Your task to perform on an android device: open app "eBay: The shopping marketplace" Image 0: 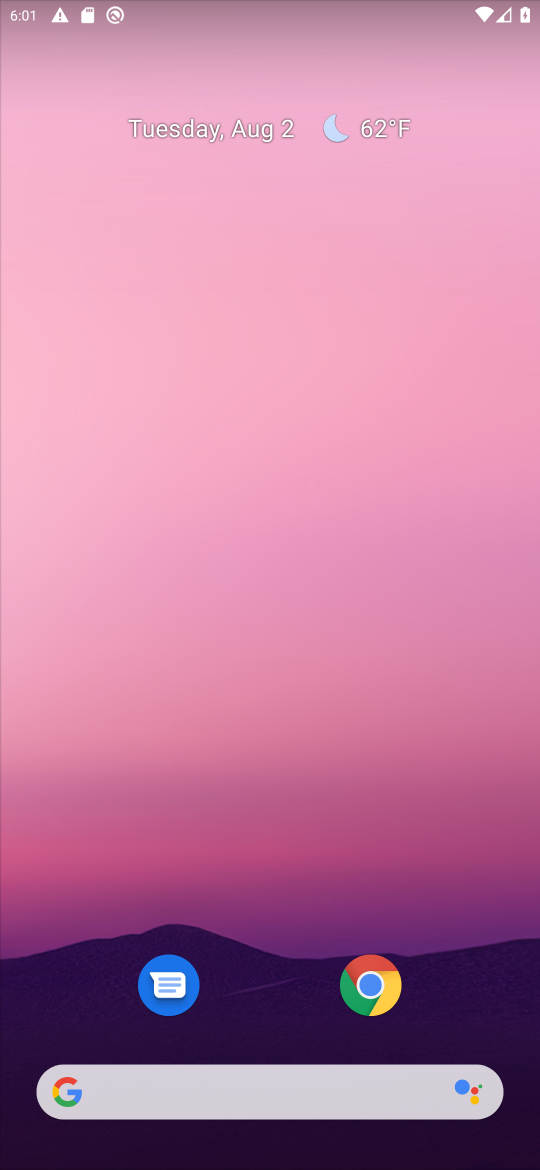
Step 0: drag from (275, 874) to (307, 293)
Your task to perform on an android device: open app "eBay: The shopping marketplace" Image 1: 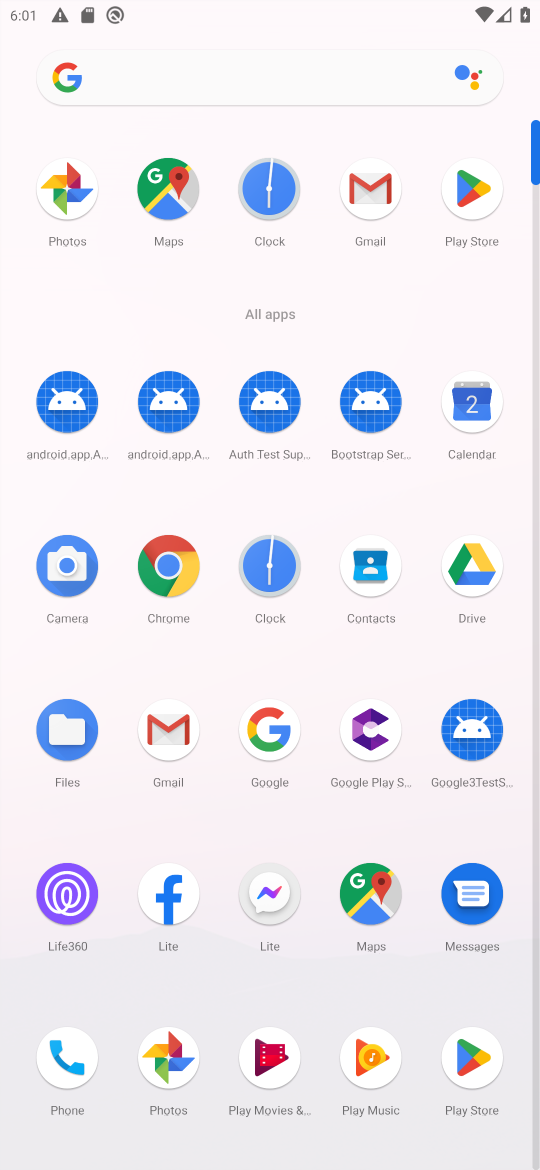
Step 1: click (456, 174)
Your task to perform on an android device: open app "eBay: The shopping marketplace" Image 2: 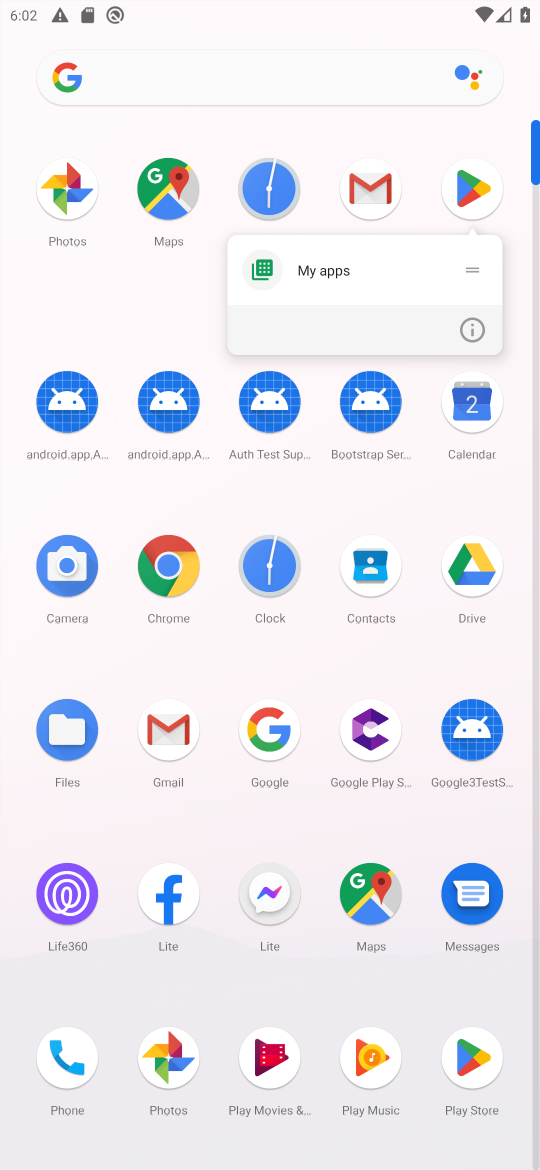
Step 2: click (454, 179)
Your task to perform on an android device: open app "eBay: The shopping marketplace" Image 3: 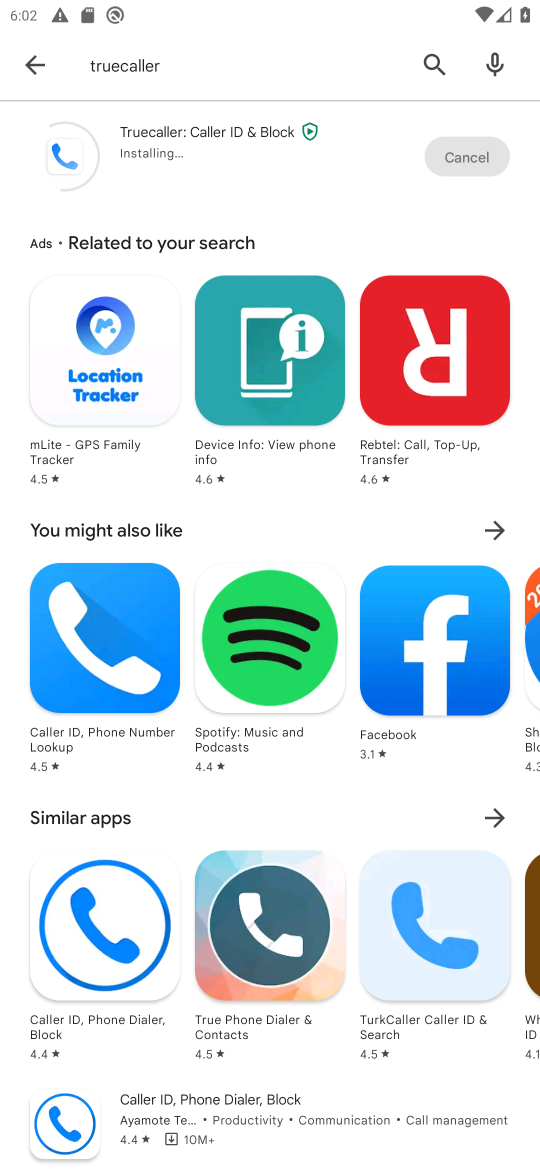
Step 3: click (444, 66)
Your task to perform on an android device: open app "eBay: The shopping marketplace" Image 4: 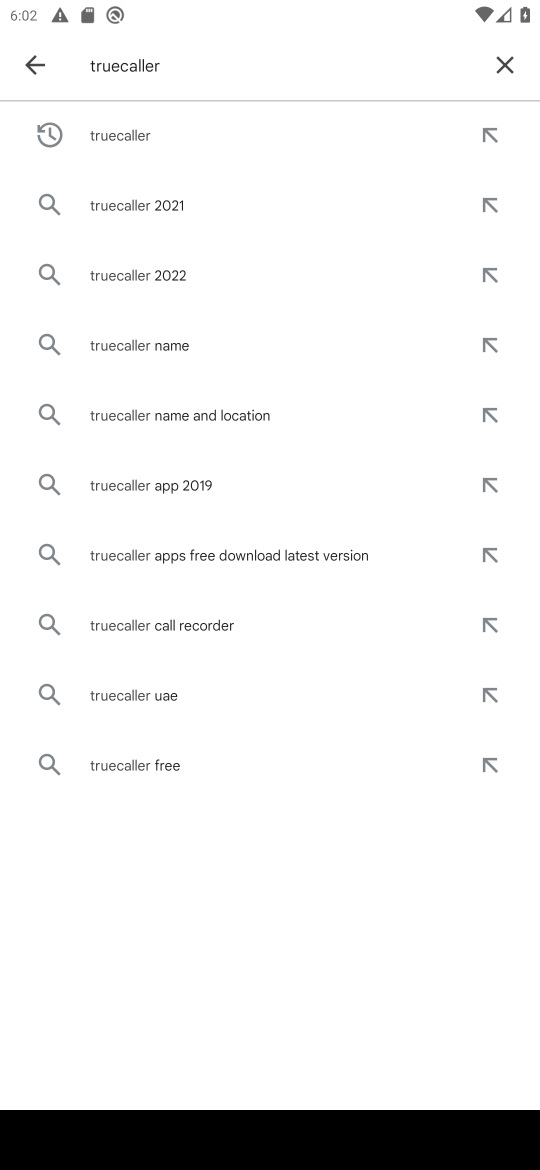
Step 4: click (494, 71)
Your task to perform on an android device: open app "eBay: The shopping marketplace" Image 5: 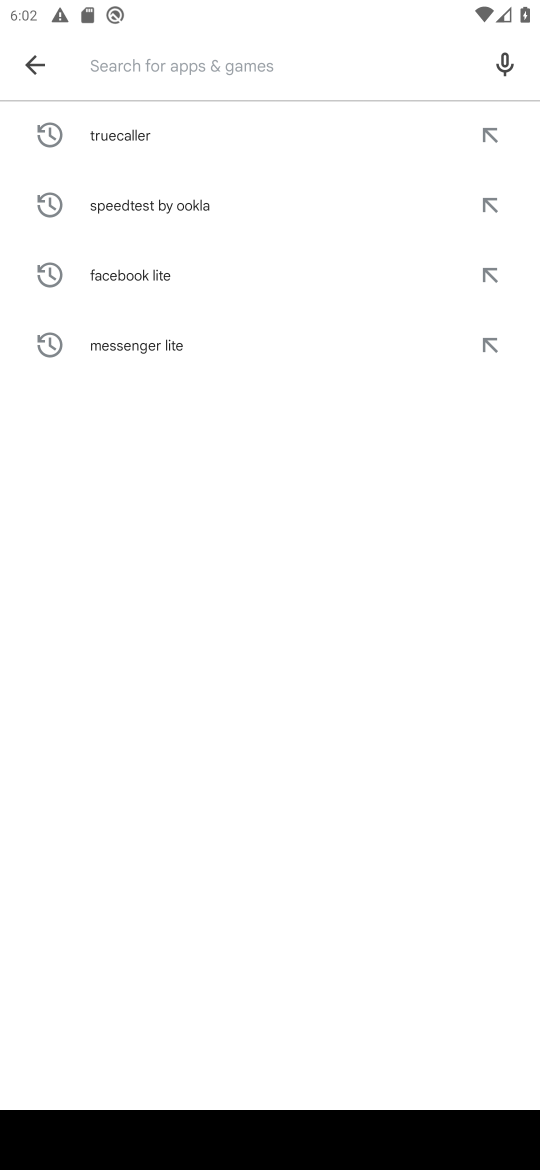
Step 5: type "eBay: The shopping marketplace"
Your task to perform on an android device: open app "eBay: The shopping marketplace" Image 6: 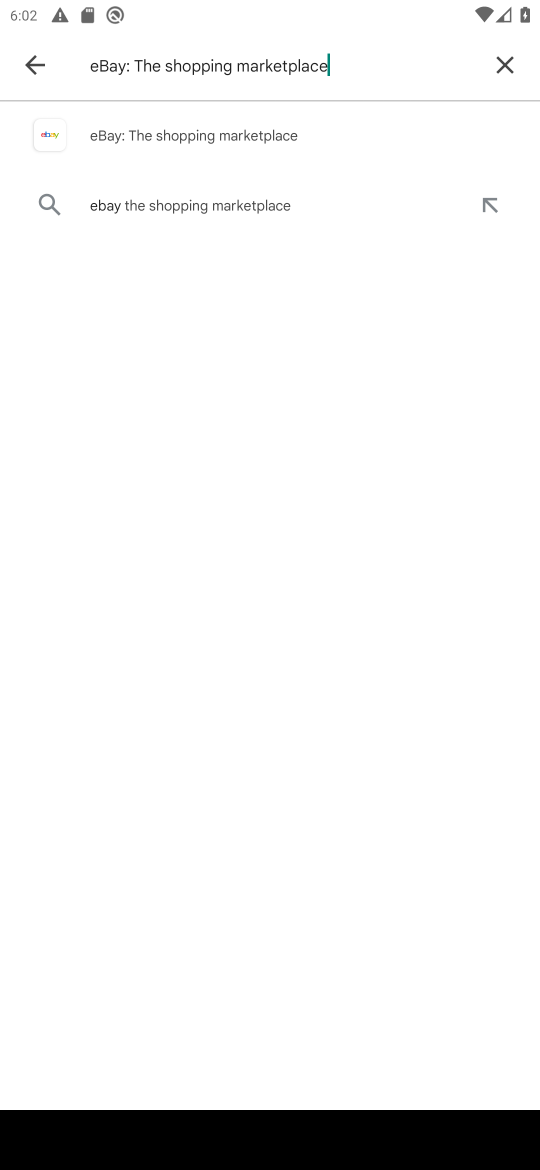
Step 6: click (221, 142)
Your task to perform on an android device: open app "eBay: The shopping marketplace" Image 7: 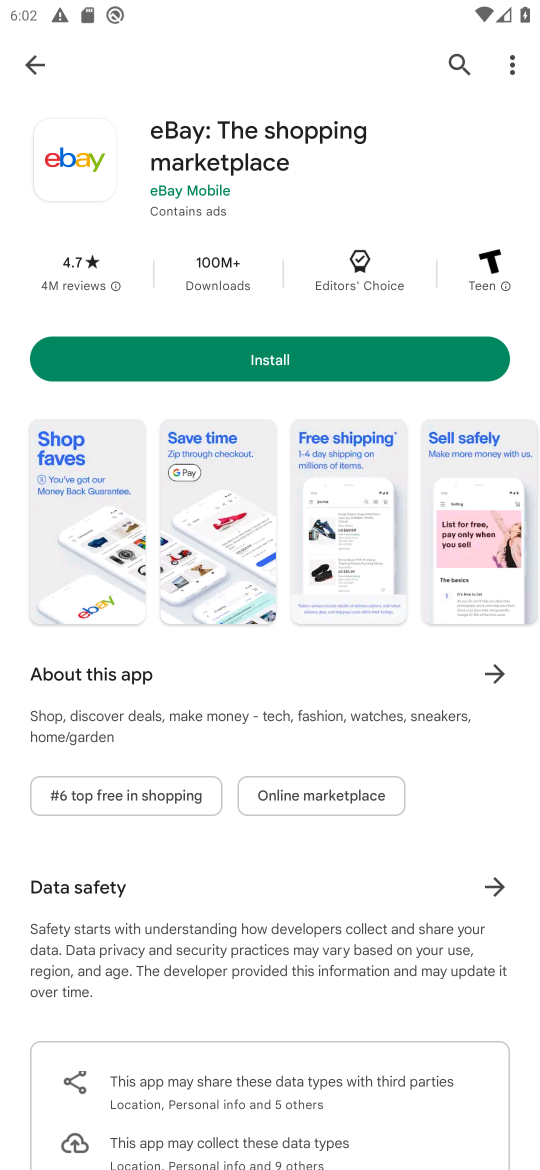
Step 7: task complete